Your task to perform on an android device: clear all cookies in the chrome app Image 0: 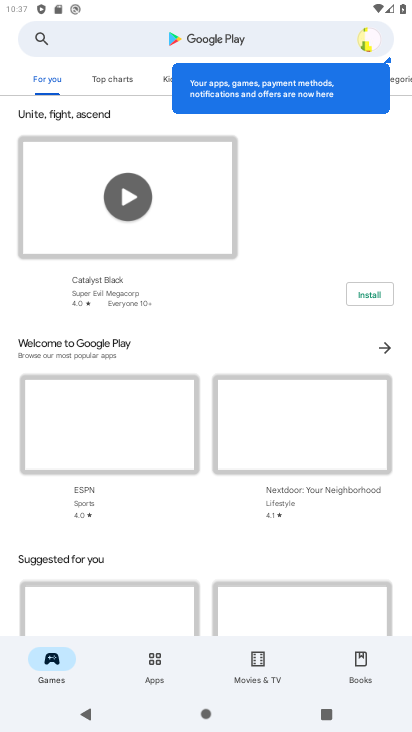
Step 0: press back button
Your task to perform on an android device: clear all cookies in the chrome app Image 1: 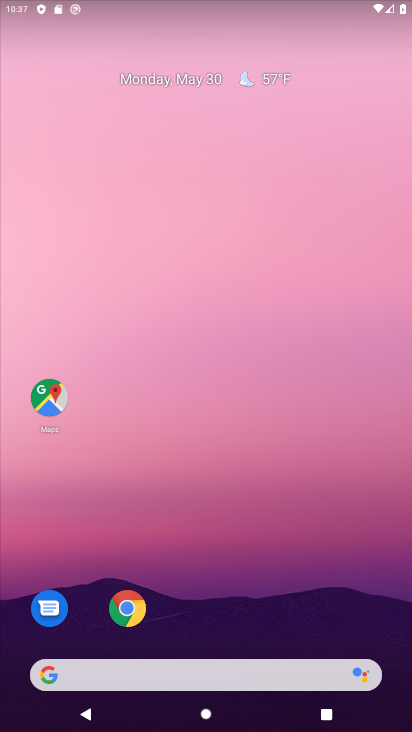
Step 1: drag from (276, 567) to (258, 6)
Your task to perform on an android device: clear all cookies in the chrome app Image 2: 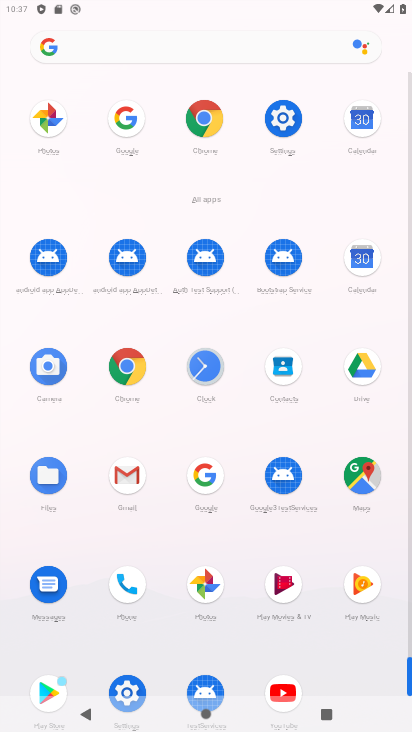
Step 2: click (125, 361)
Your task to perform on an android device: clear all cookies in the chrome app Image 3: 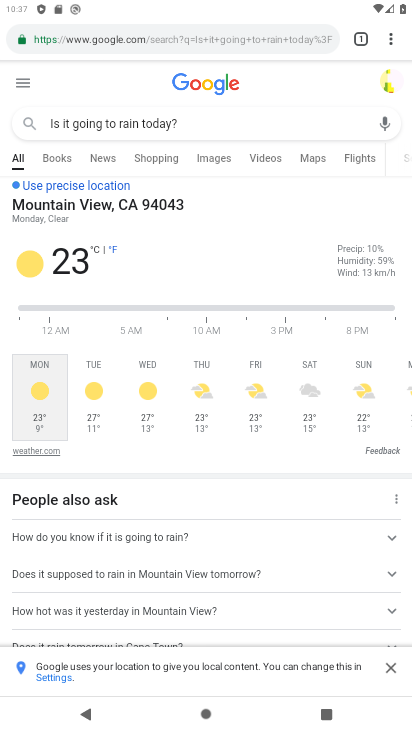
Step 3: drag from (391, 36) to (260, 471)
Your task to perform on an android device: clear all cookies in the chrome app Image 4: 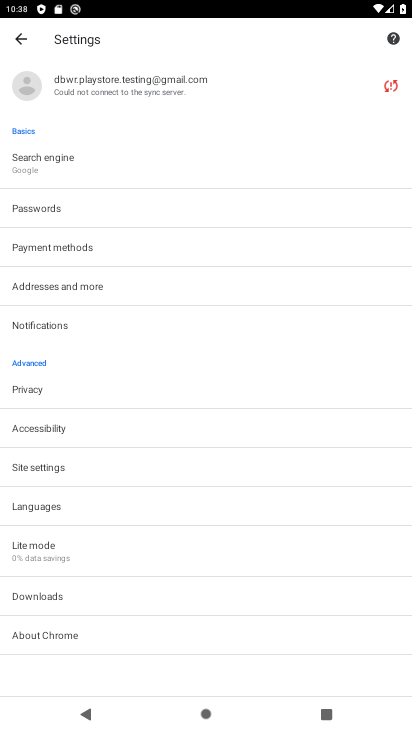
Step 4: click (58, 466)
Your task to perform on an android device: clear all cookies in the chrome app Image 5: 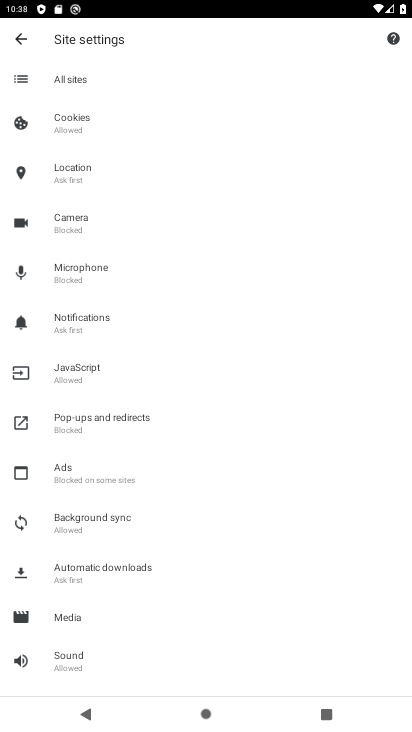
Step 5: click (39, 43)
Your task to perform on an android device: clear all cookies in the chrome app Image 6: 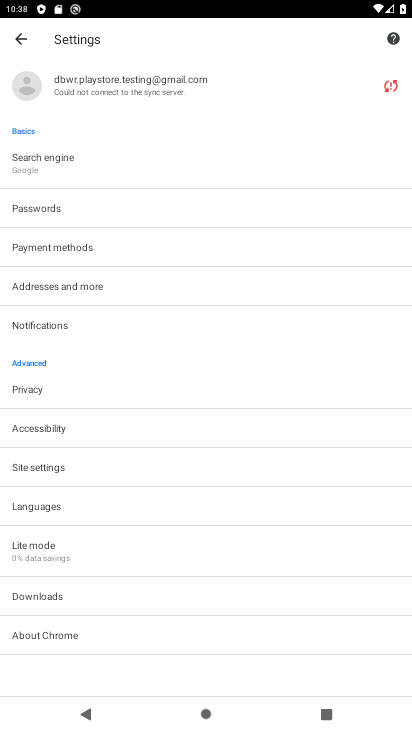
Step 6: click (55, 388)
Your task to perform on an android device: clear all cookies in the chrome app Image 7: 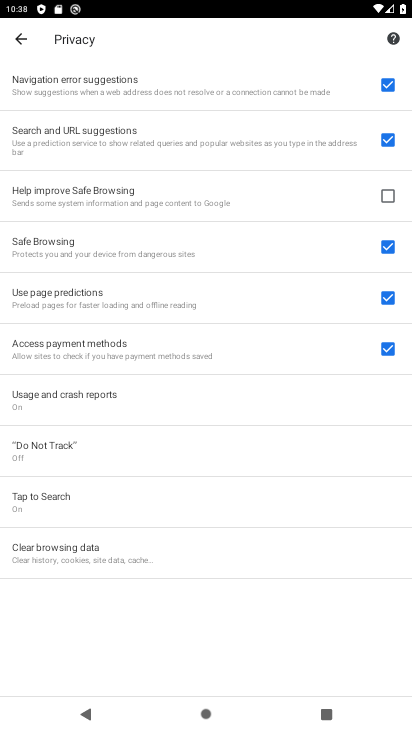
Step 7: click (149, 555)
Your task to perform on an android device: clear all cookies in the chrome app Image 8: 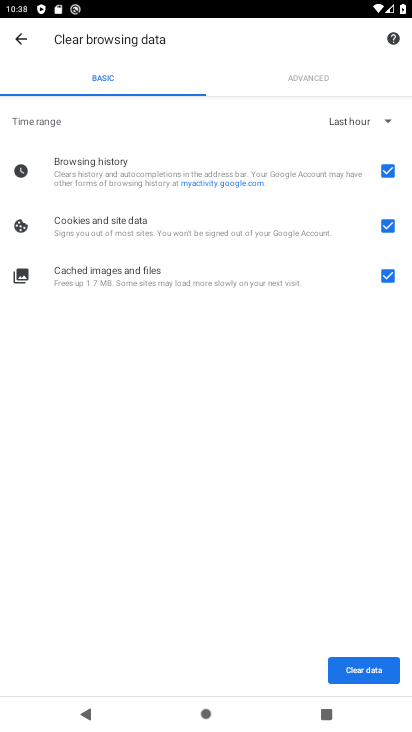
Step 8: click (388, 170)
Your task to perform on an android device: clear all cookies in the chrome app Image 9: 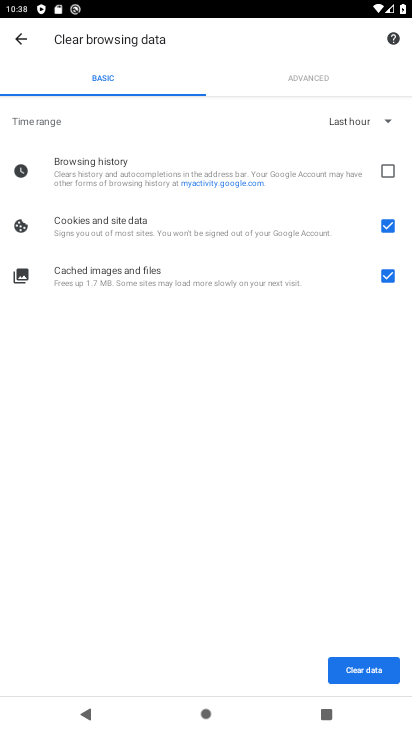
Step 9: click (385, 273)
Your task to perform on an android device: clear all cookies in the chrome app Image 10: 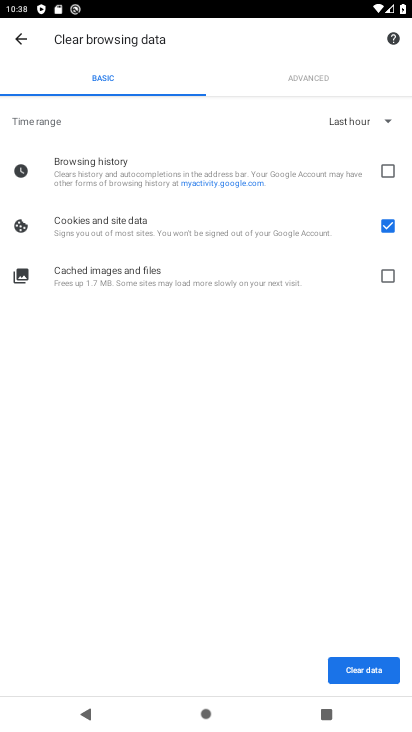
Step 10: click (365, 667)
Your task to perform on an android device: clear all cookies in the chrome app Image 11: 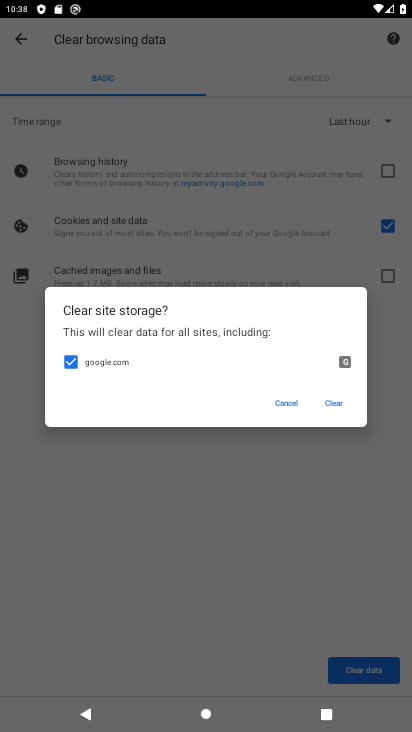
Step 11: click (320, 397)
Your task to perform on an android device: clear all cookies in the chrome app Image 12: 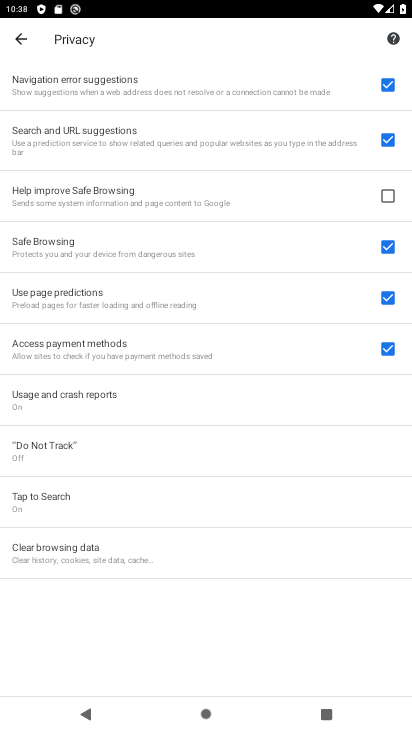
Step 12: task complete